Your task to perform on an android device: make emails show in primary in the gmail app Image 0: 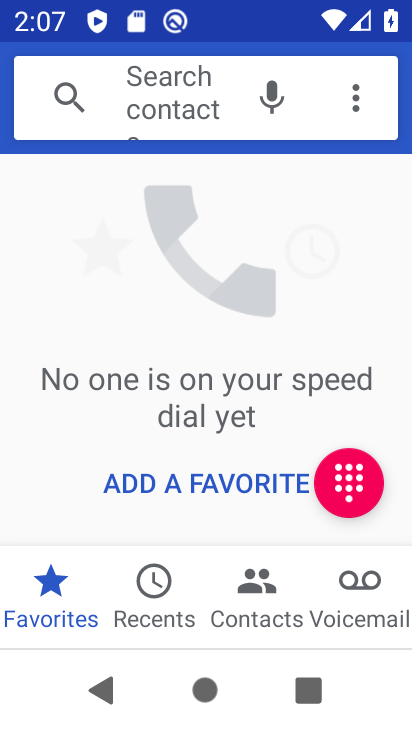
Step 0: press home button
Your task to perform on an android device: make emails show in primary in the gmail app Image 1: 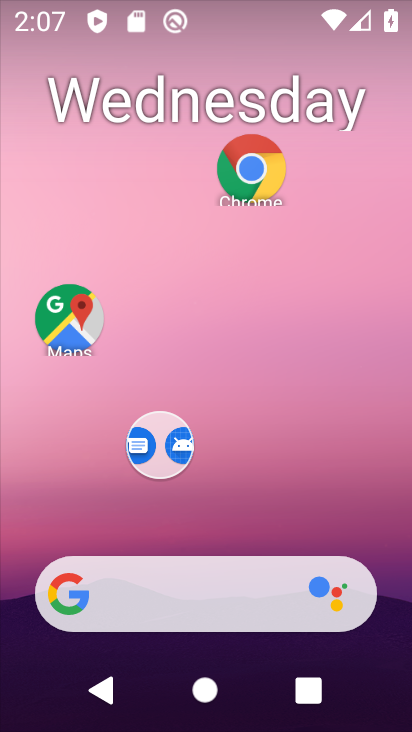
Step 1: drag from (183, 540) to (278, 0)
Your task to perform on an android device: make emails show in primary in the gmail app Image 2: 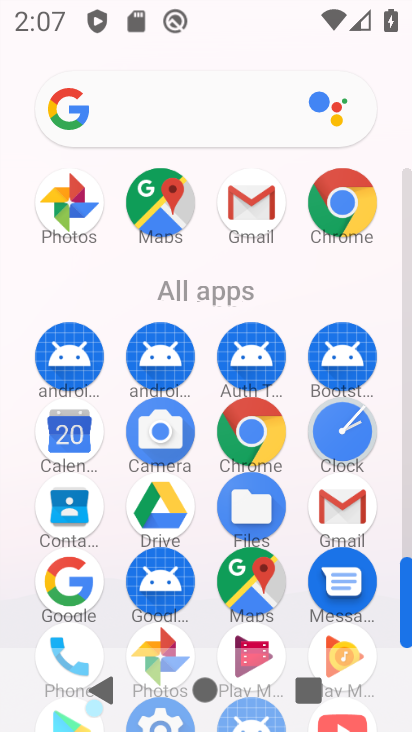
Step 2: click (340, 504)
Your task to perform on an android device: make emails show in primary in the gmail app Image 3: 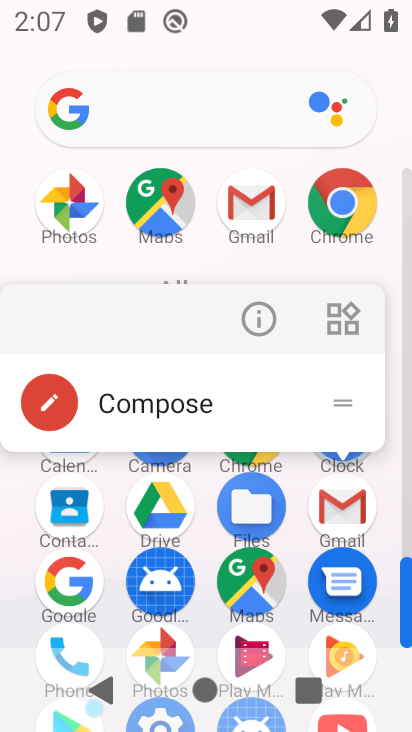
Step 3: click (339, 515)
Your task to perform on an android device: make emails show in primary in the gmail app Image 4: 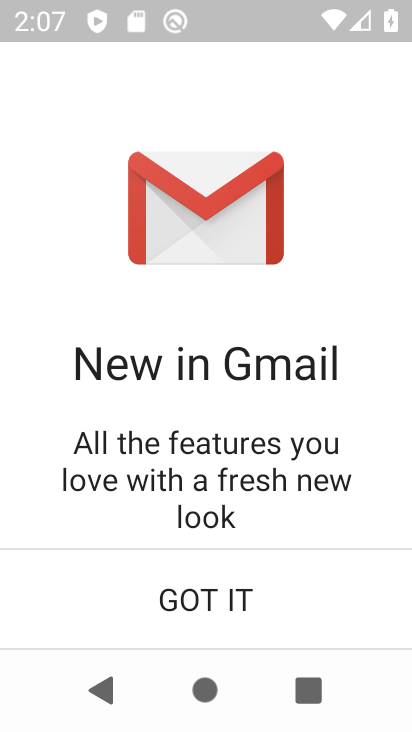
Step 4: click (197, 571)
Your task to perform on an android device: make emails show in primary in the gmail app Image 5: 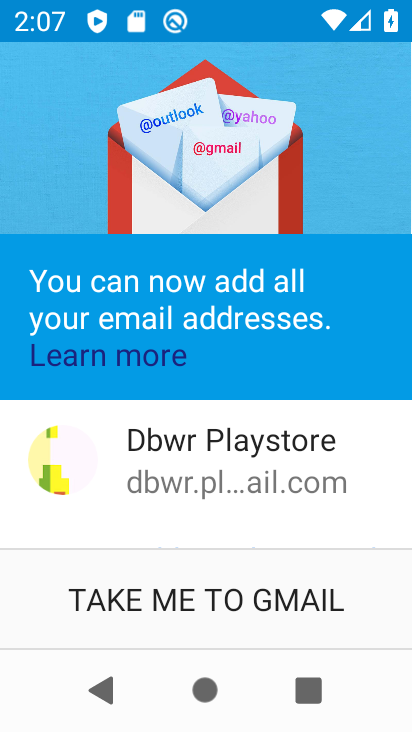
Step 5: click (308, 564)
Your task to perform on an android device: make emails show in primary in the gmail app Image 6: 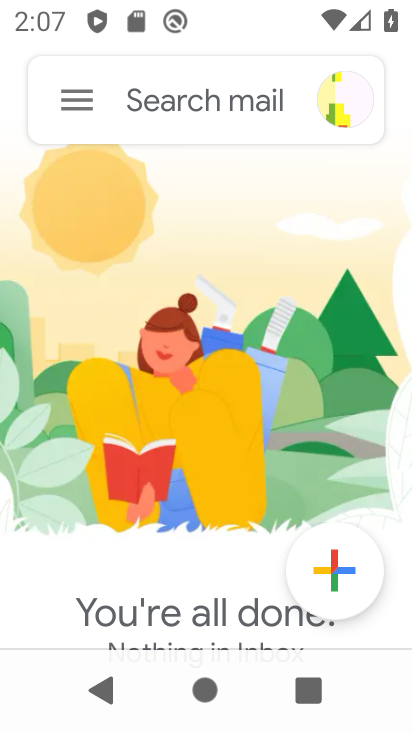
Step 6: drag from (190, 433) to (182, 238)
Your task to perform on an android device: make emails show in primary in the gmail app Image 7: 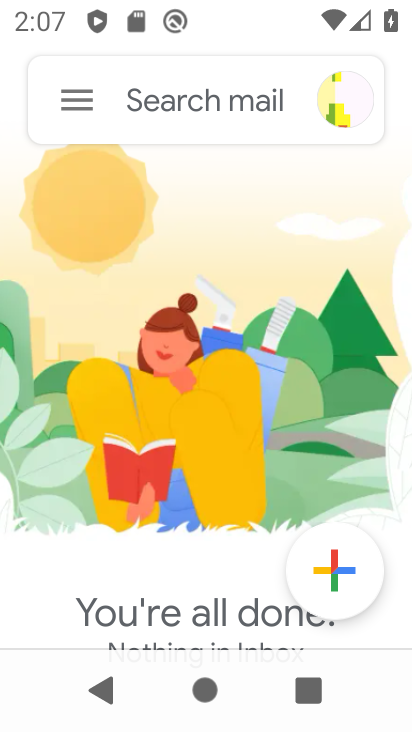
Step 7: drag from (166, 578) to (189, 385)
Your task to perform on an android device: make emails show in primary in the gmail app Image 8: 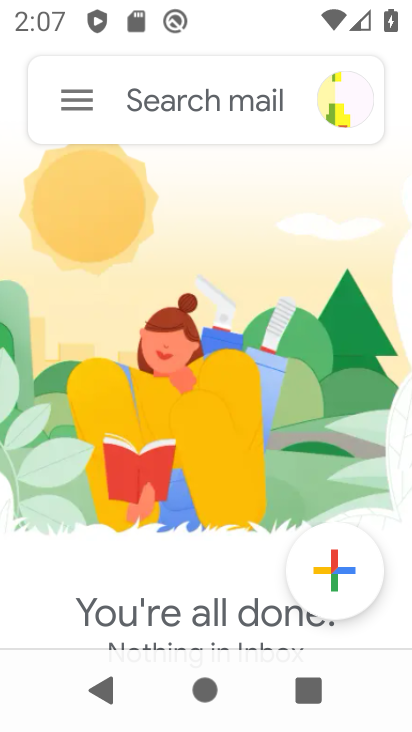
Step 8: click (57, 106)
Your task to perform on an android device: make emails show in primary in the gmail app Image 9: 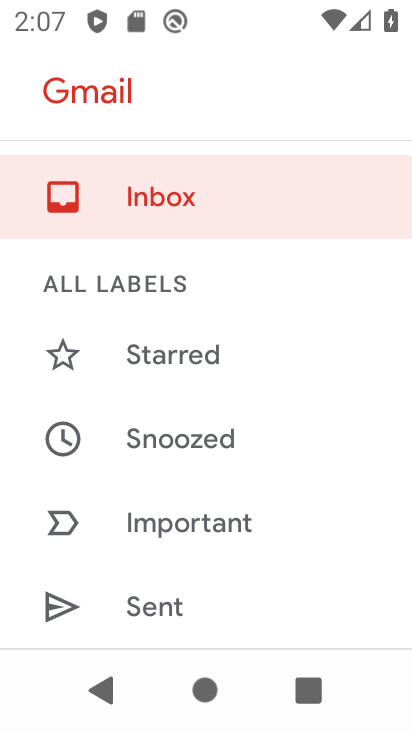
Step 9: drag from (113, 449) to (145, 97)
Your task to perform on an android device: make emails show in primary in the gmail app Image 10: 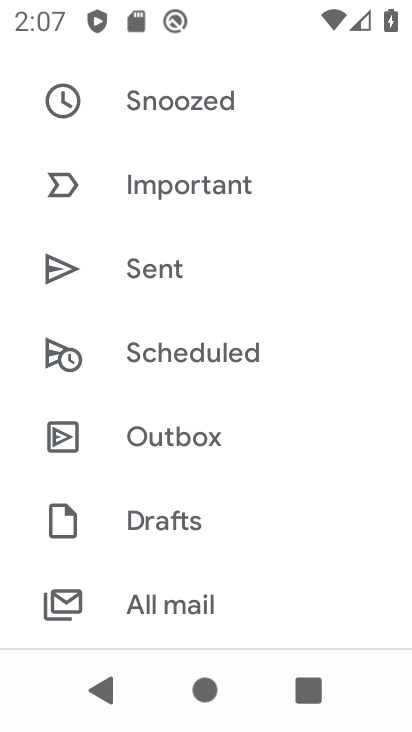
Step 10: drag from (151, 551) to (166, 199)
Your task to perform on an android device: make emails show in primary in the gmail app Image 11: 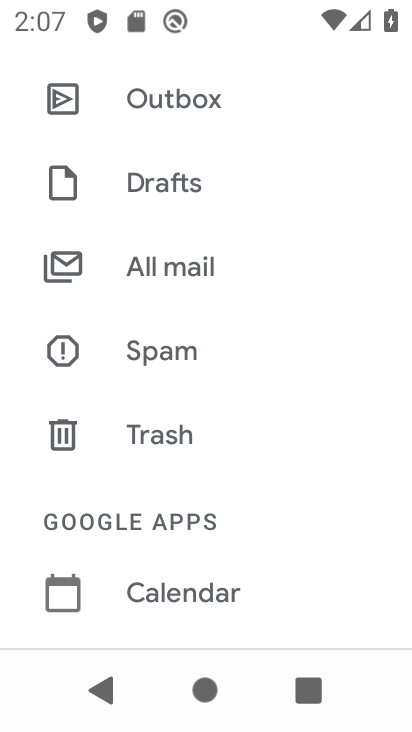
Step 11: drag from (164, 544) to (218, 125)
Your task to perform on an android device: make emails show in primary in the gmail app Image 12: 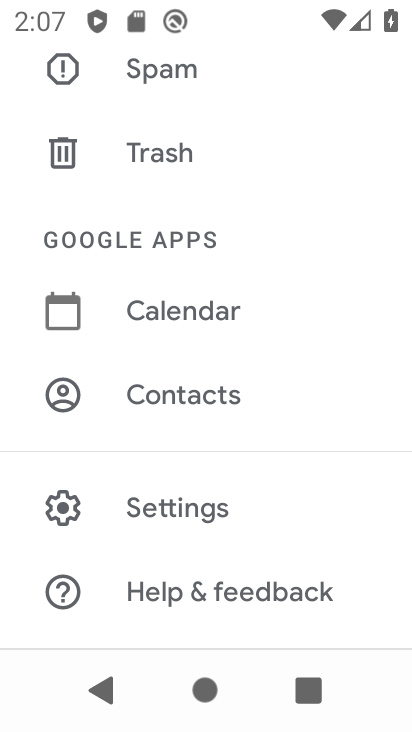
Step 12: click (164, 513)
Your task to perform on an android device: make emails show in primary in the gmail app Image 13: 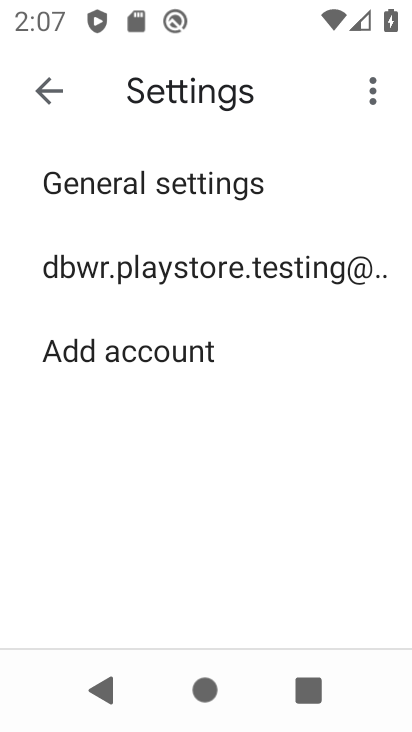
Step 13: click (142, 277)
Your task to perform on an android device: make emails show in primary in the gmail app Image 14: 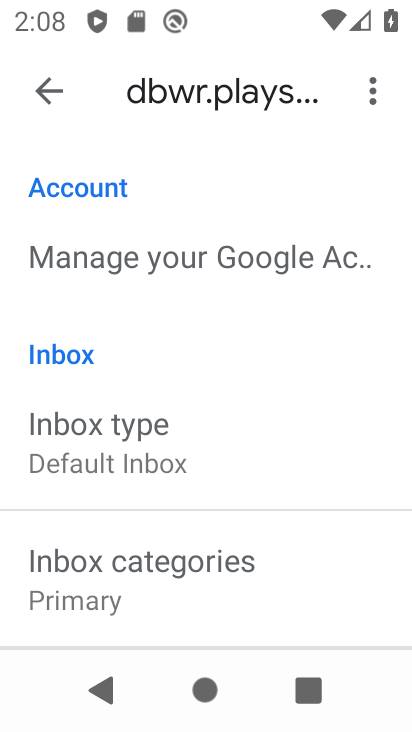
Step 14: click (136, 572)
Your task to perform on an android device: make emails show in primary in the gmail app Image 15: 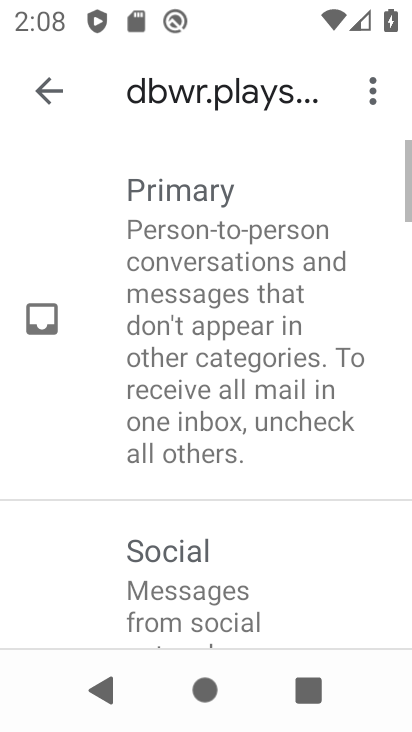
Step 15: click (128, 557)
Your task to perform on an android device: make emails show in primary in the gmail app Image 16: 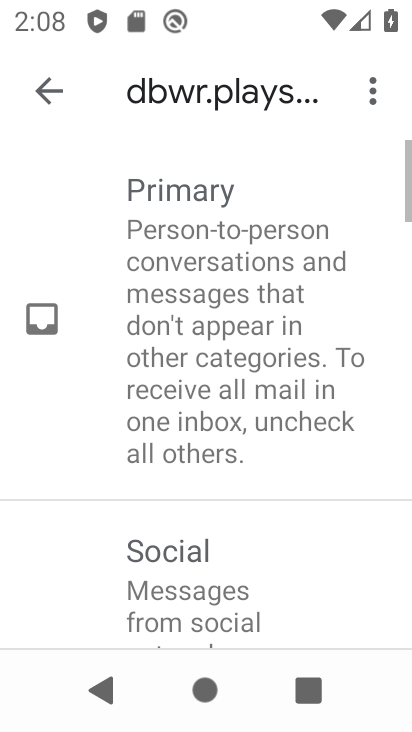
Step 16: drag from (129, 558) to (174, 40)
Your task to perform on an android device: make emails show in primary in the gmail app Image 17: 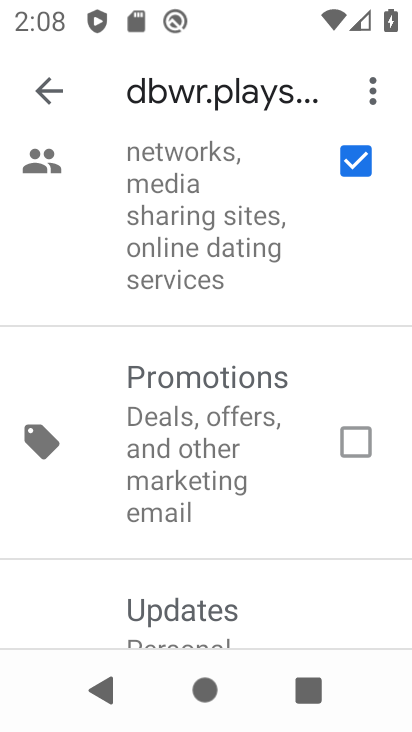
Step 17: click (321, 421)
Your task to perform on an android device: make emails show in primary in the gmail app Image 18: 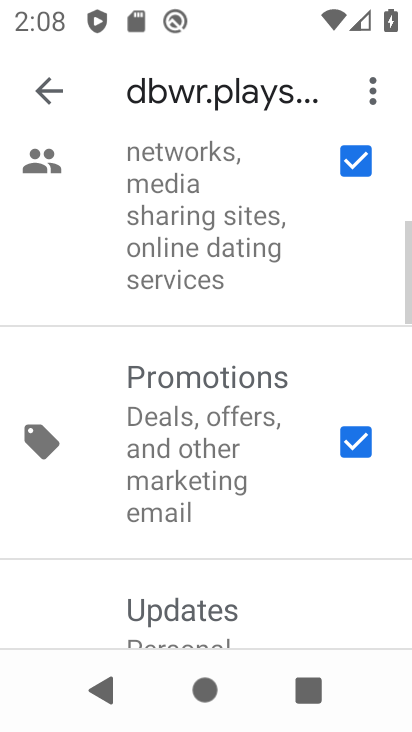
Step 18: drag from (262, 515) to (264, 24)
Your task to perform on an android device: make emails show in primary in the gmail app Image 19: 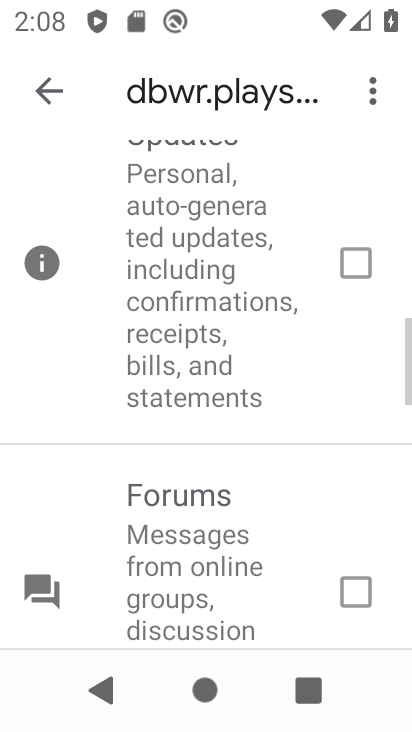
Step 19: click (63, 101)
Your task to perform on an android device: make emails show in primary in the gmail app Image 20: 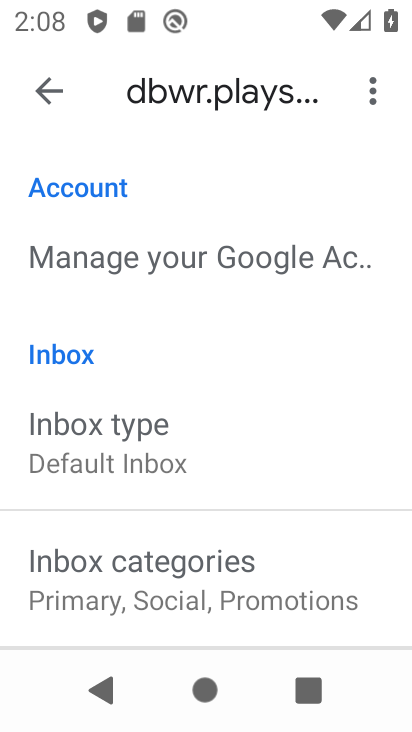
Step 20: click (59, 99)
Your task to perform on an android device: make emails show in primary in the gmail app Image 21: 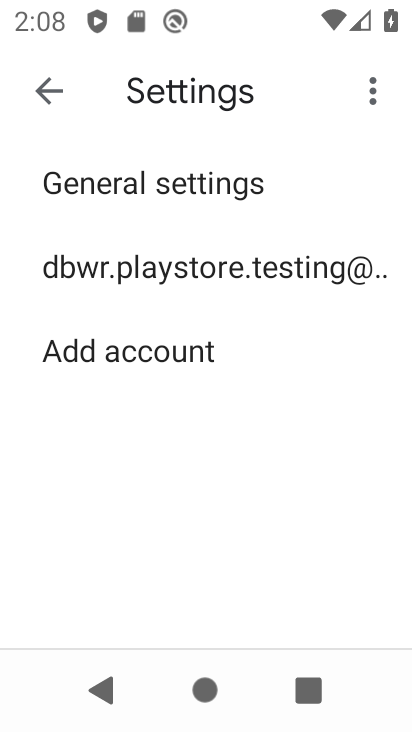
Step 21: click (52, 90)
Your task to perform on an android device: make emails show in primary in the gmail app Image 22: 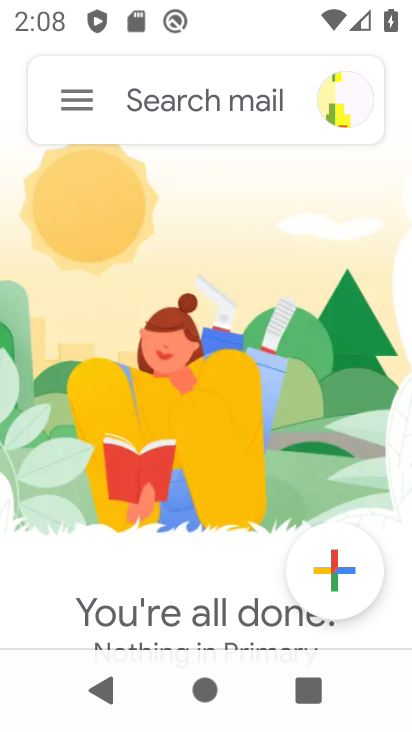
Step 22: click (51, 89)
Your task to perform on an android device: make emails show in primary in the gmail app Image 23: 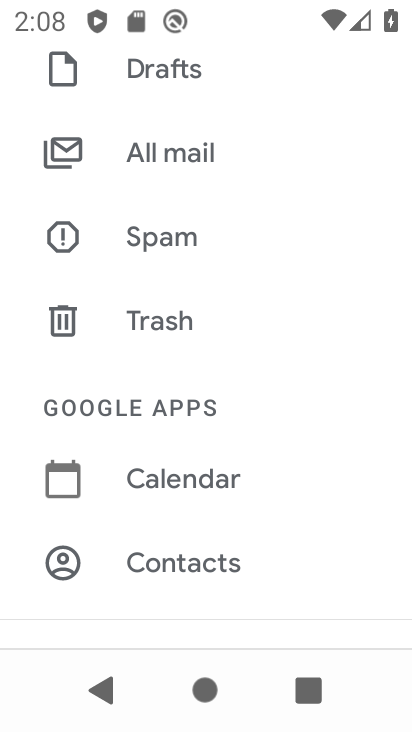
Step 23: drag from (86, 182) to (33, 562)
Your task to perform on an android device: make emails show in primary in the gmail app Image 24: 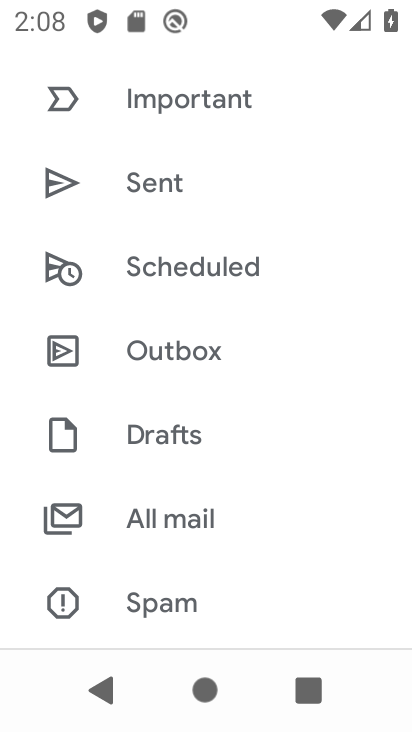
Step 24: drag from (134, 225) to (126, 498)
Your task to perform on an android device: make emails show in primary in the gmail app Image 25: 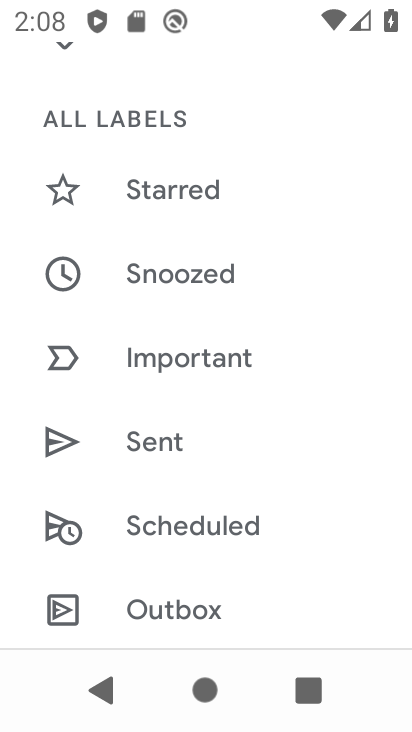
Step 25: drag from (175, 208) to (172, 422)
Your task to perform on an android device: make emails show in primary in the gmail app Image 26: 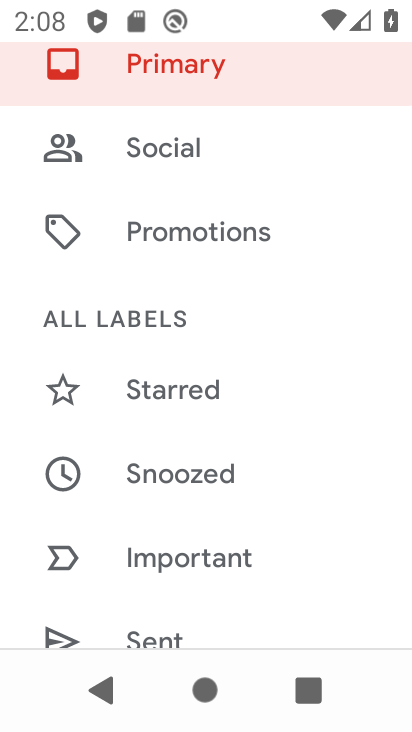
Step 26: click (206, 87)
Your task to perform on an android device: make emails show in primary in the gmail app Image 27: 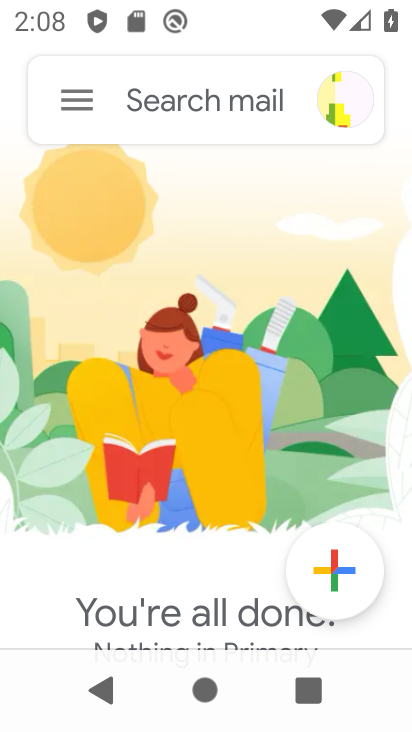
Step 27: task complete